Your task to perform on an android device: search for starred emails in the gmail app Image 0: 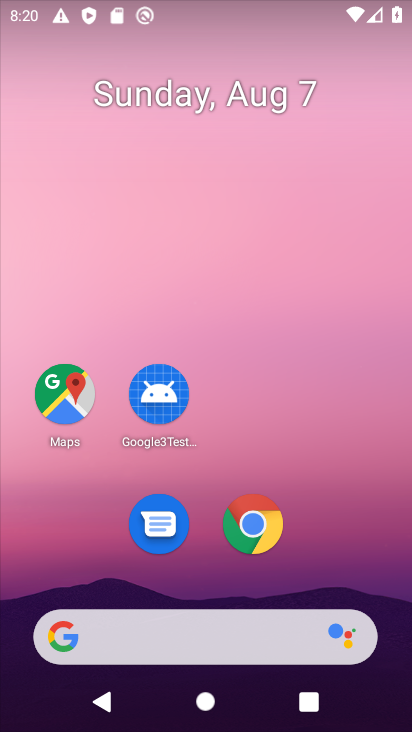
Step 0: drag from (162, 587) to (108, 80)
Your task to perform on an android device: search for starred emails in the gmail app Image 1: 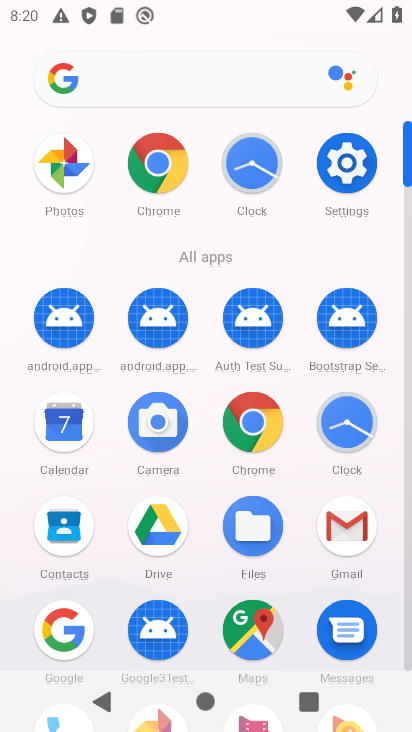
Step 1: click (340, 511)
Your task to perform on an android device: search for starred emails in the gmail app Image 2: 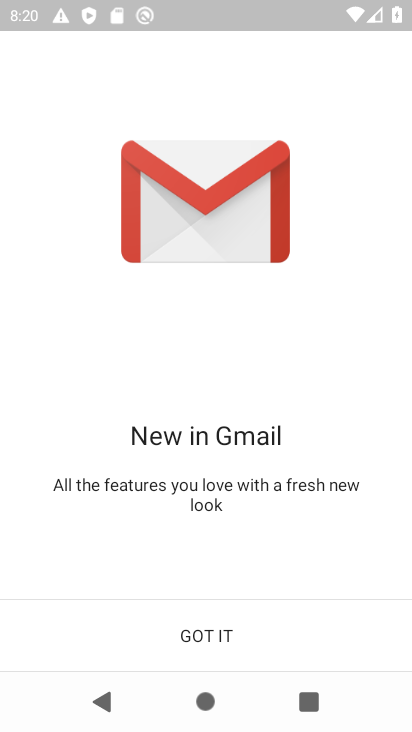
Step 2: click (311, 617)
Your task to perform on an android device: search for starred emails in the gmail app Image 3: 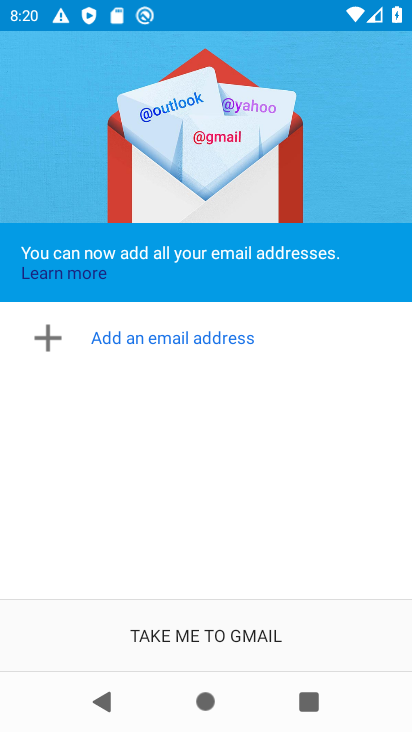
Step 3: click (278, 629)
Your task to perform on an android device: search for starred emails in the gmail app Image 4: 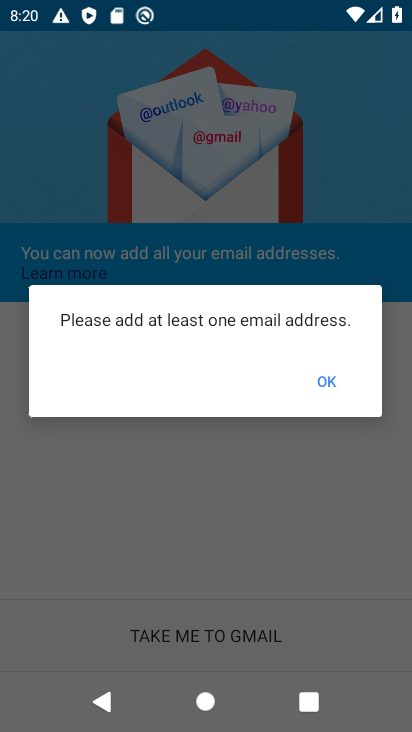
Step 4: click (323, 373)
Your task to perform on an android device: search for starred emails in the gmail app Image 5: 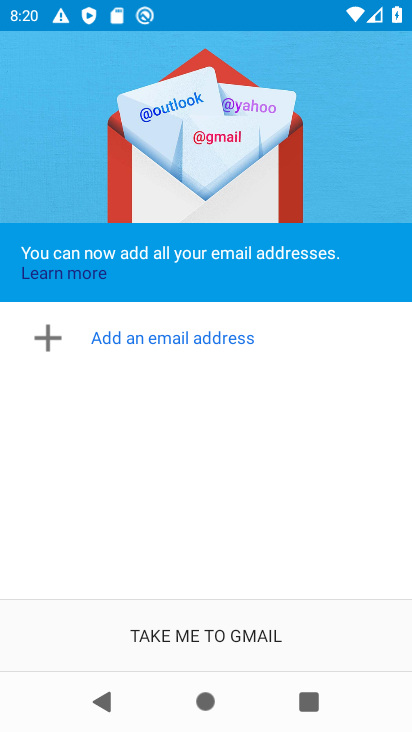
Step 5: task complete